Your task to perform on an android device: turn off smart reply in the gmail app Image 0: 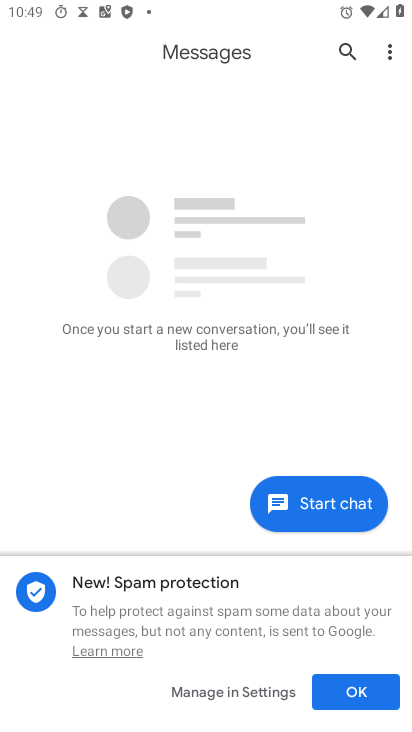
Step 0: press home button
Your task to perform on an android device: turn off smart reply in the gmail app Image 1: 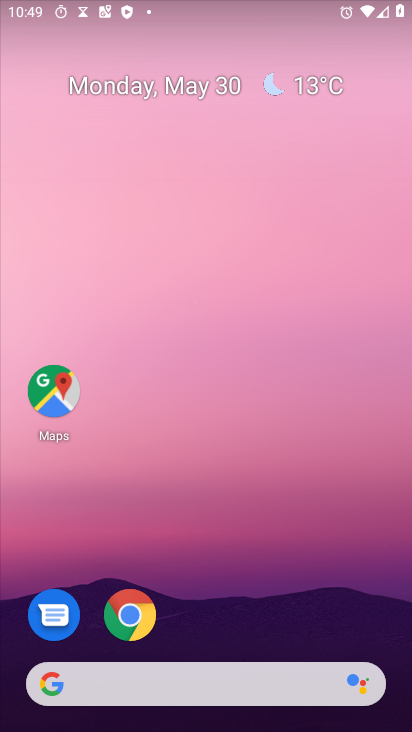
Step 1: drag from (286, 598) to (262, 135)
Your task to perform on an android device: turn off smart reply in the gmail app Image 2: 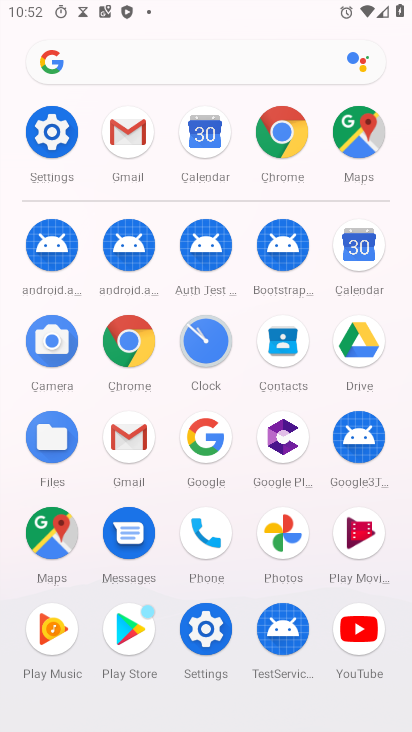
Step 2: click (103, 132)
Your task to perform on an android device: turn off smart reply in the gmail app Image 3: 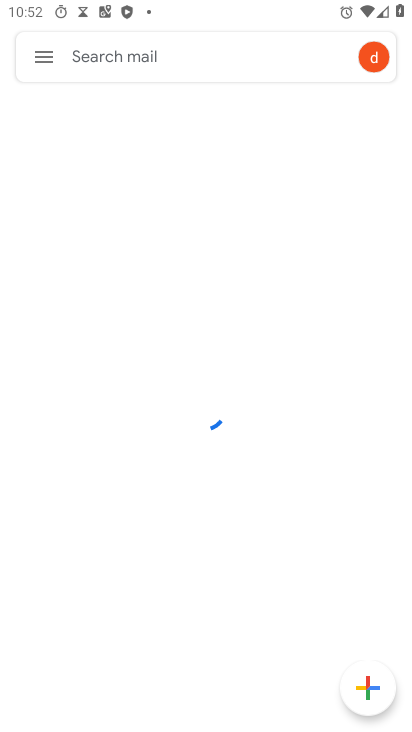
Step 3: click (53, 64)
Your task to perform on an android device: turn off smart reply in the gmail app Image 4: 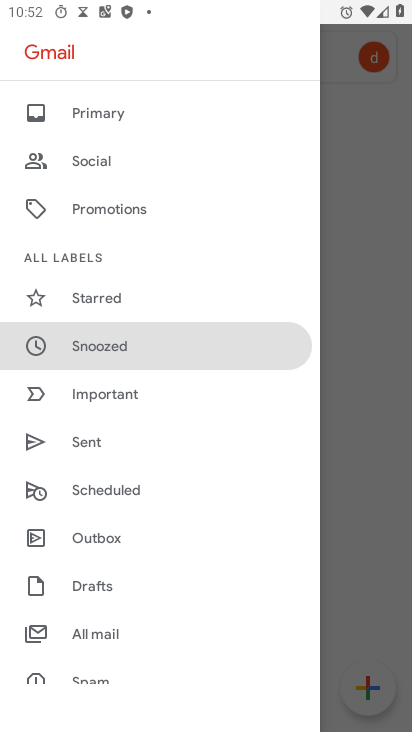
Step 4: drag from (159, 651) to (131, 261)
Your task to perform on an android device: turn off smart reply in the gmail app Image 5: 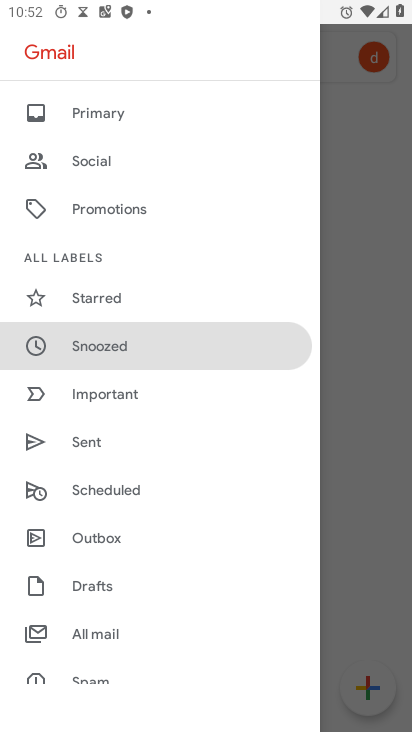
Step 5: drag from (92, 632) to (168, 306)
Your task to perform on an android device: turn off smart reply in the gmail app Image 6: 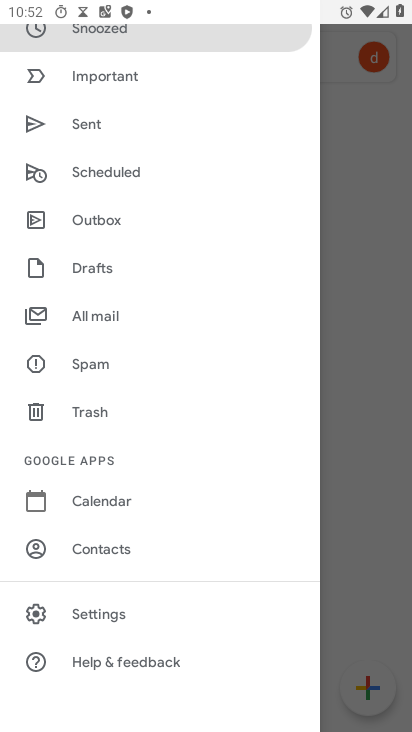
Step 6: click (103, 614)
Your task to perform on an android device: turn off smart reply in the gmail app Image 7: 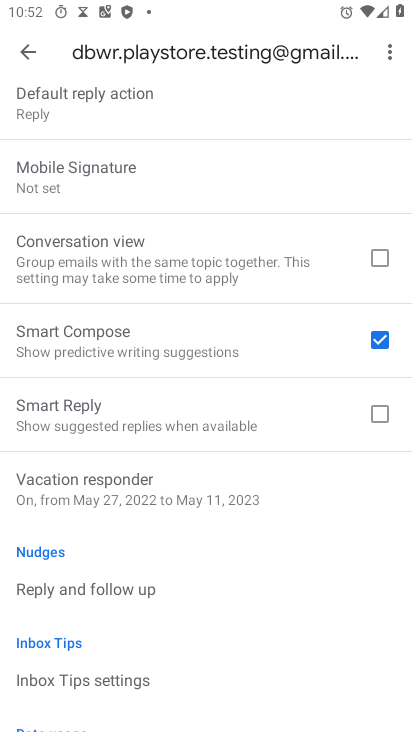
Step 7: task complete